Your task to perform on an android device: Show me recent news Image 0: 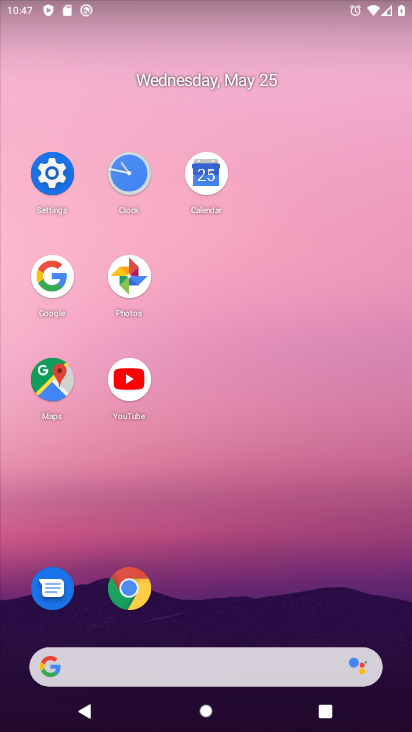
Step 0: click (51, 279)
Your task to perform on an android device: Show me recent news Image 1: 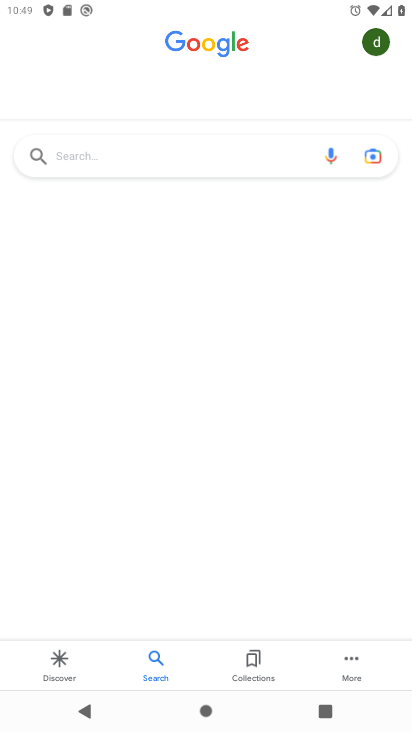
Step 1: click (129, 154)
Your task to perform on an android device: Show me recent news Image 2: 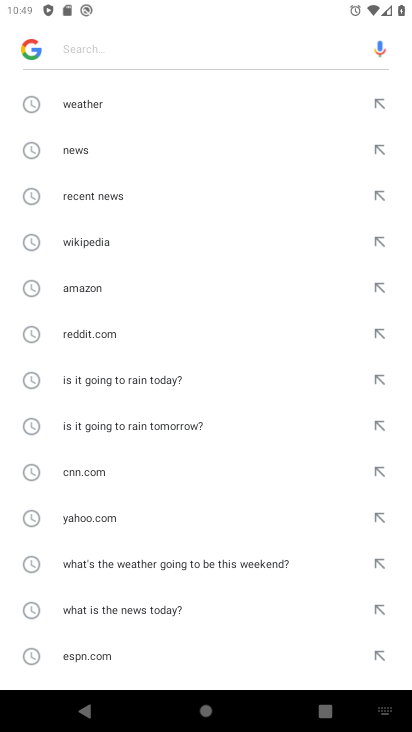
Step 2: click (152, 194)
Your task to perform on an android device: Show me recent news Image 3: 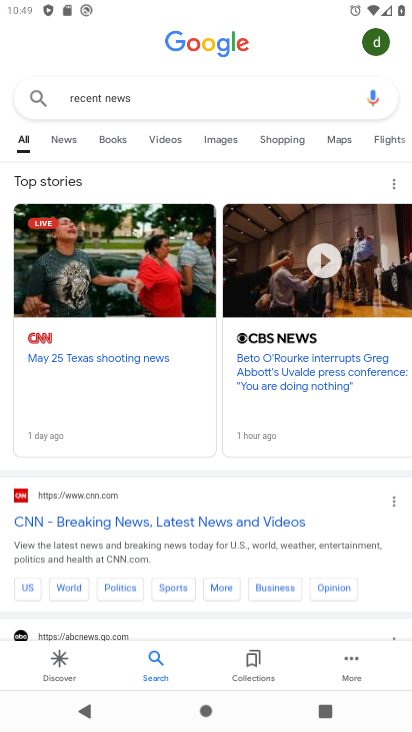
Step 3: task complete